Your task to perform on an android device: change the clock display to show seconds Image 0: 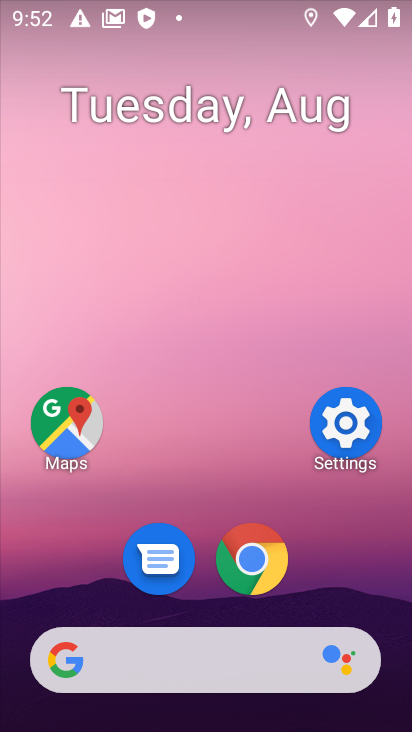
Step 0: press home button
Your task to perform on an android device: change the clock display to show seconds Image 1: 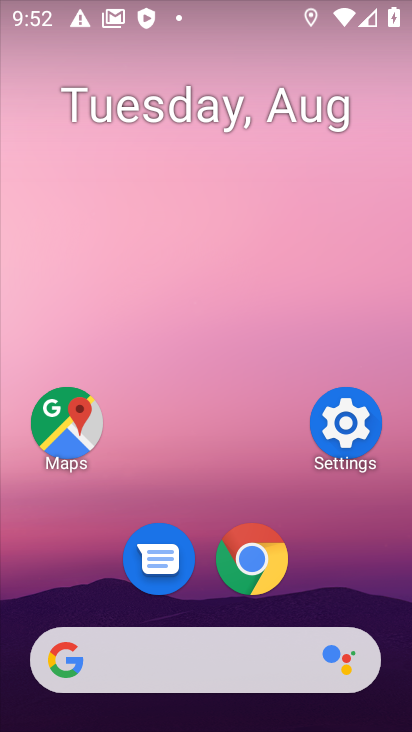
Step 1: drag from (213, 675) to (354, 115)
Your task to perform on an android device: change the clock display to show seconds Image 2: 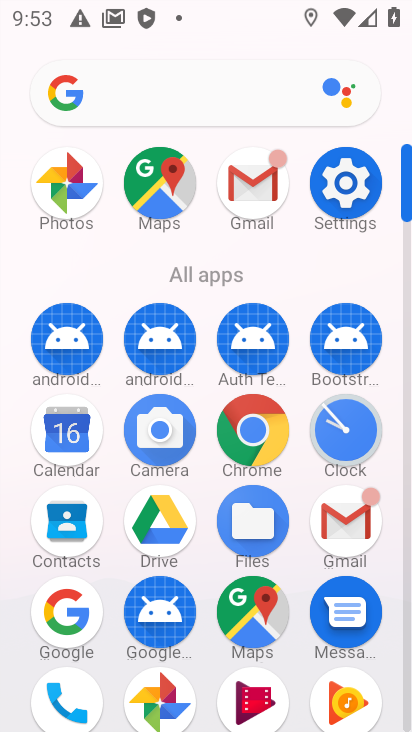
Step 2: click (345, 441)
Your task to perform on an android device: change the clock display to show seconds Image 3: 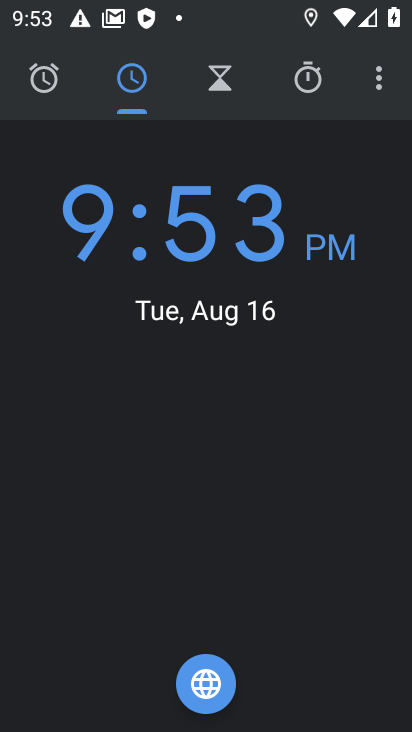
Step 3: click (378, 81)
Your task to perform on an android device: change the clock display to show seconds Image 4: 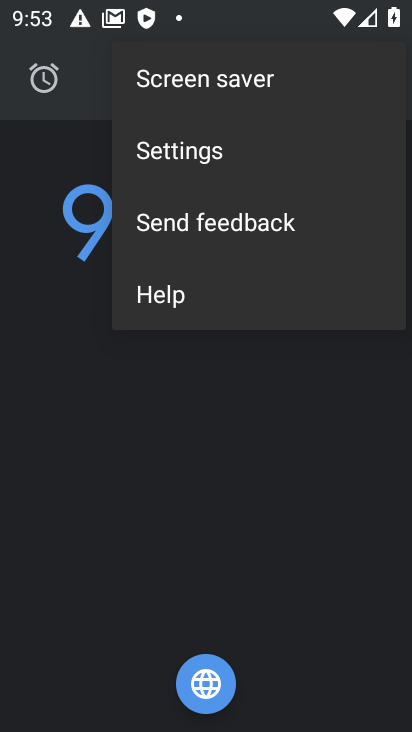
Step 4: click (215, 142)
Your task to perform on an android device: change the clock display to show seconds Image 5: 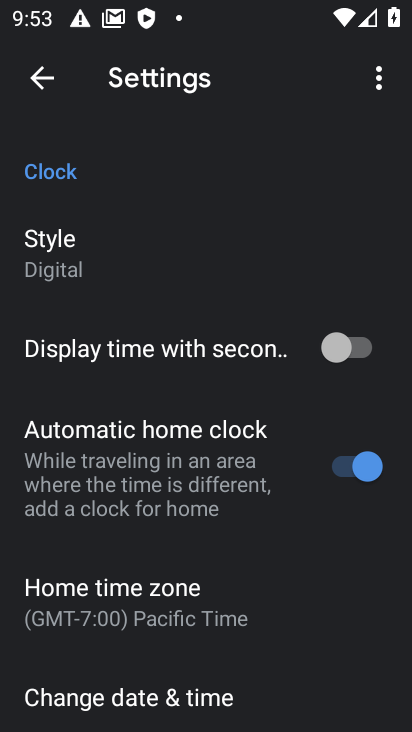
Step 5: click (363, 343)
Your task to perform on an android device: change the clock display to show seconds Image 6: 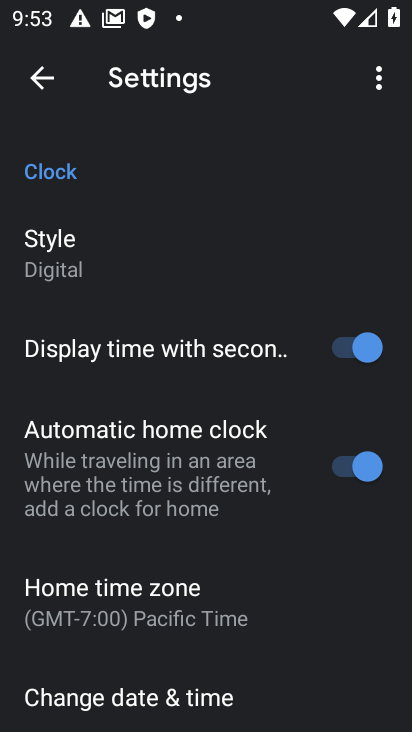
Step 6: task complete